Your task to perform on an android device: Go to display settings Image 0: 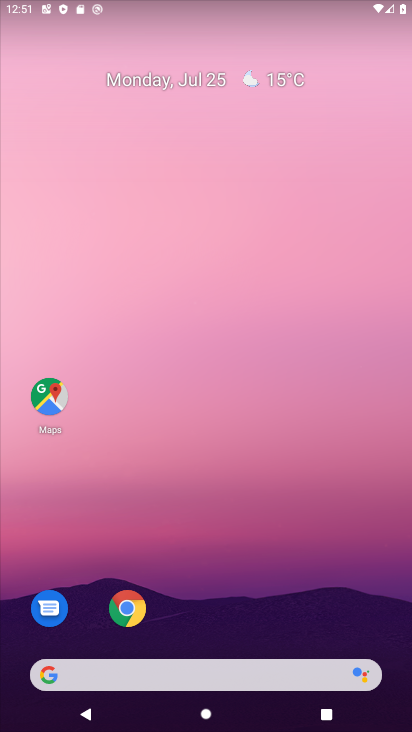
Step 0: drag from (251, 614) to (311, 152)
Your task to perform on an android device: Go to display settings Image 1: 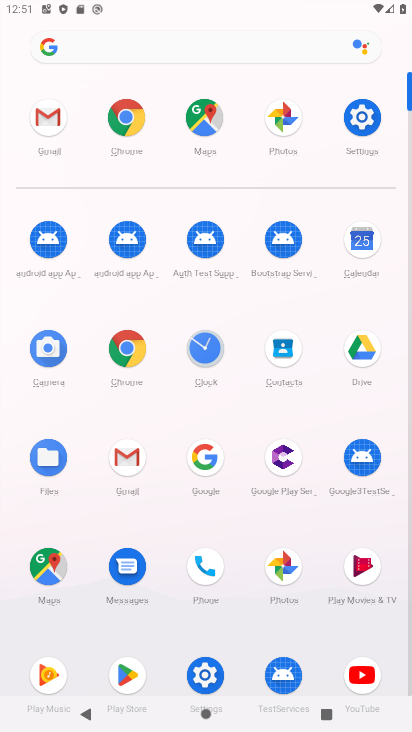
Step 1: click (207, 672)
Your task to perform on an android device: Go to display settings Image 2: 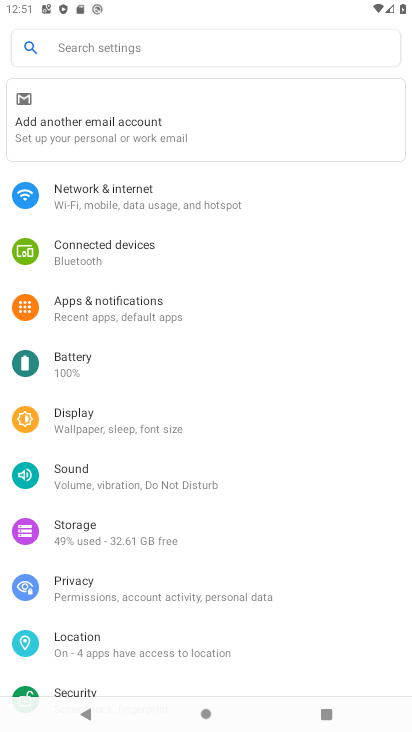
Step 2: drag from (212, 600) to (225, 500)
Your task to perform on an android device: Go to display settings Image 3: 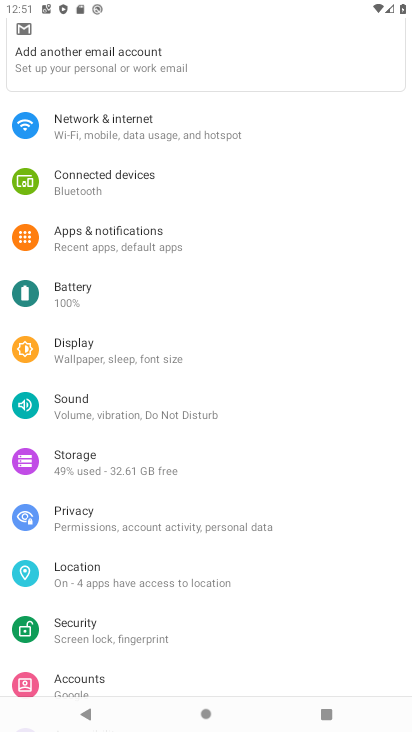
Step 3: click (129, 355)
Your task to perform on an android device: Go to display settings Image 4: 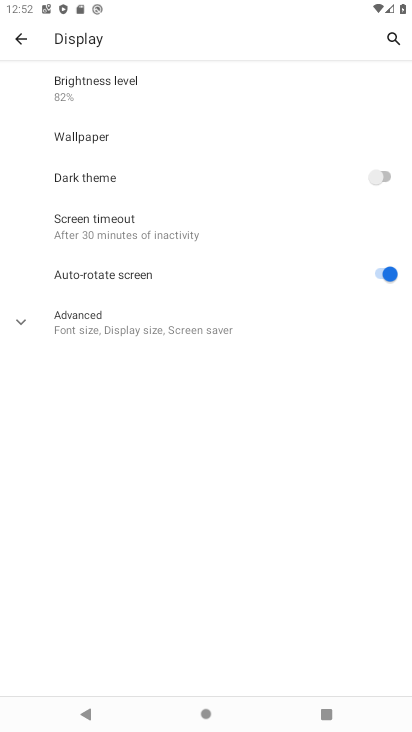
Step 4: task complete